Your task to perform on an android device: Search for "macbook pro 15 inch" on walmart.com, select the first entry, add it to the cart, then select checkout. Image 0: 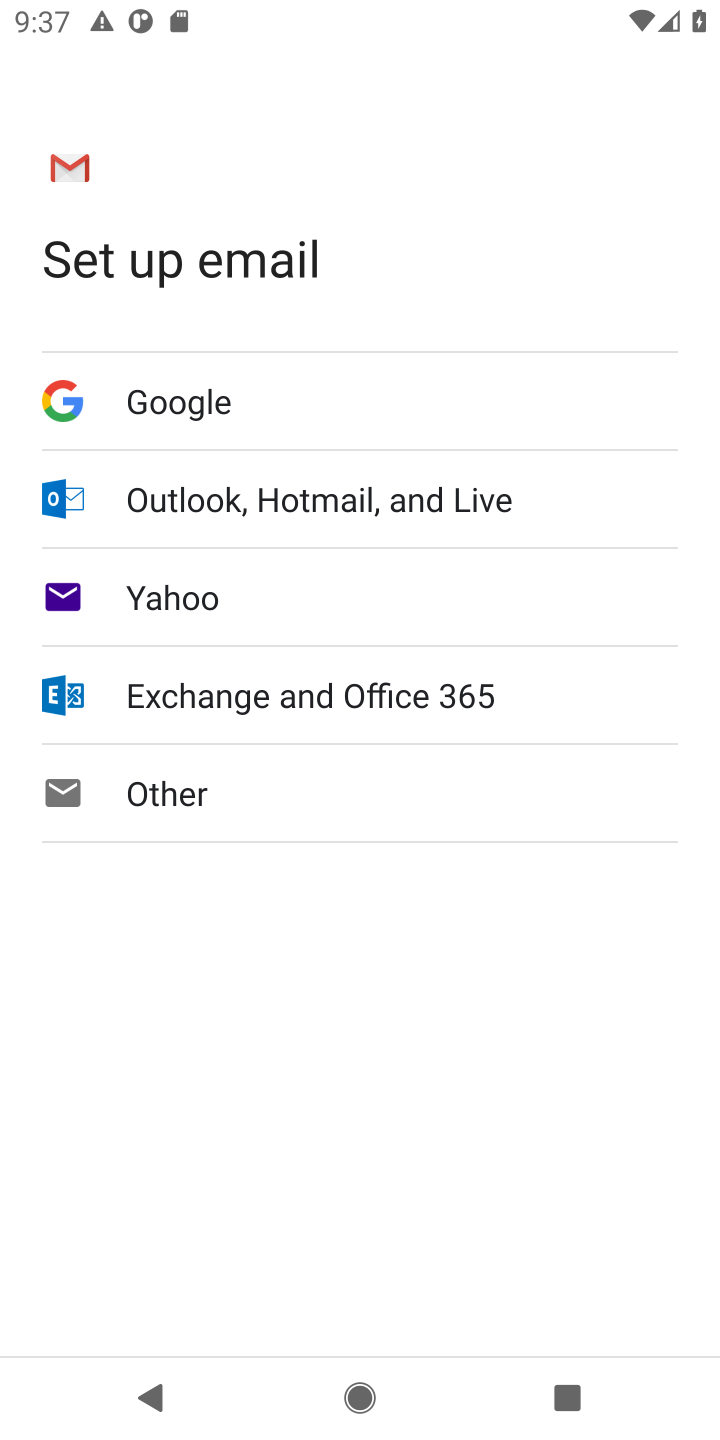
Step 0: press home button
Your task to perform on an android device: Search for "macbook pro 15 inch" on walmart.com, select the first entry, add it to the cart, then select checkout. Image 1: 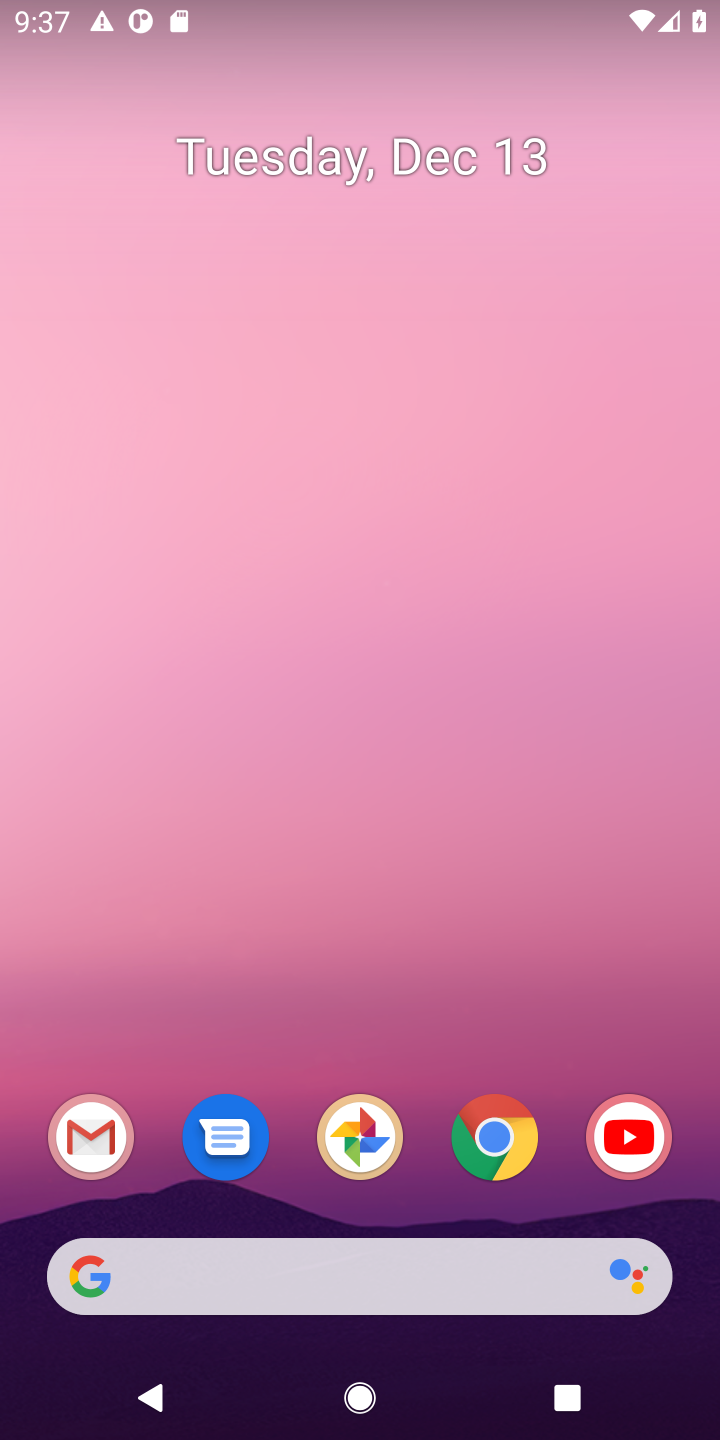
Step 1: click (488, 1155)
Your task to perform on an android device: Search for "macbook pro 15 inch" on walmart.com, select the first entry, add it to the cart, then select checkout. Image 2: 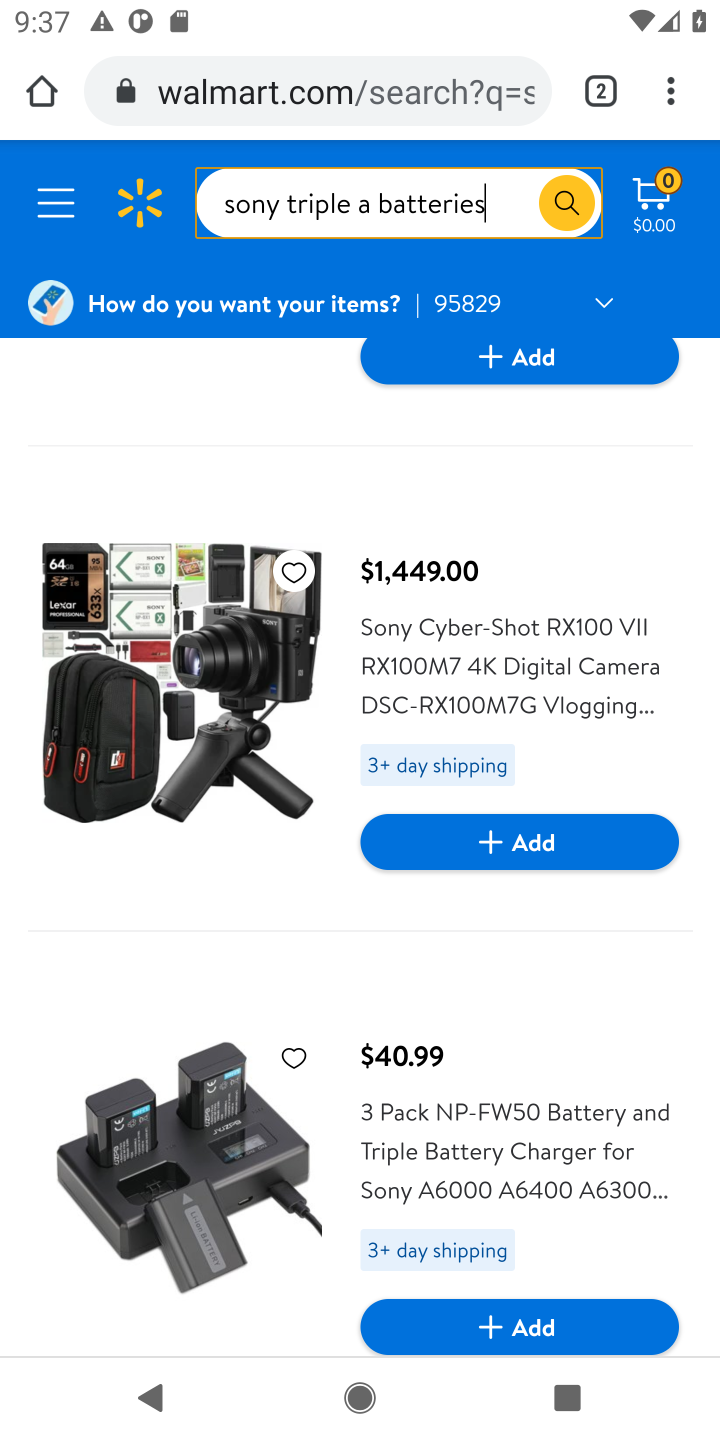
Step 2: click (432, 205)
Your task to perform on an android device: Search for "macbook pro 15 inch" on walmart.com, select the first entry, add it to the cart, then select checkout. Image 3: 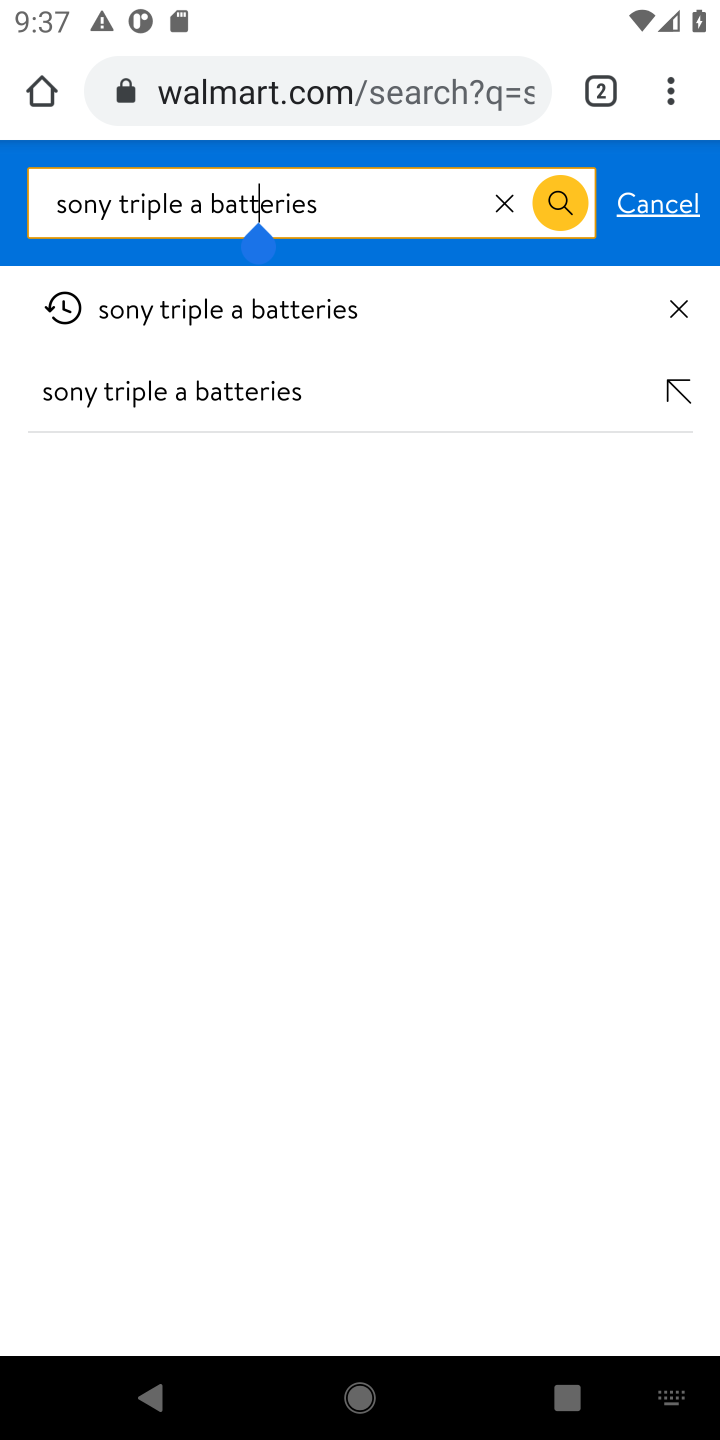
Step 3: click (506, 204)
Your task to perform on an android device: Search for "macbook pro 15 inch" on walmart.com, select the first entry, add it to the cart, then select checkout. Image 4: 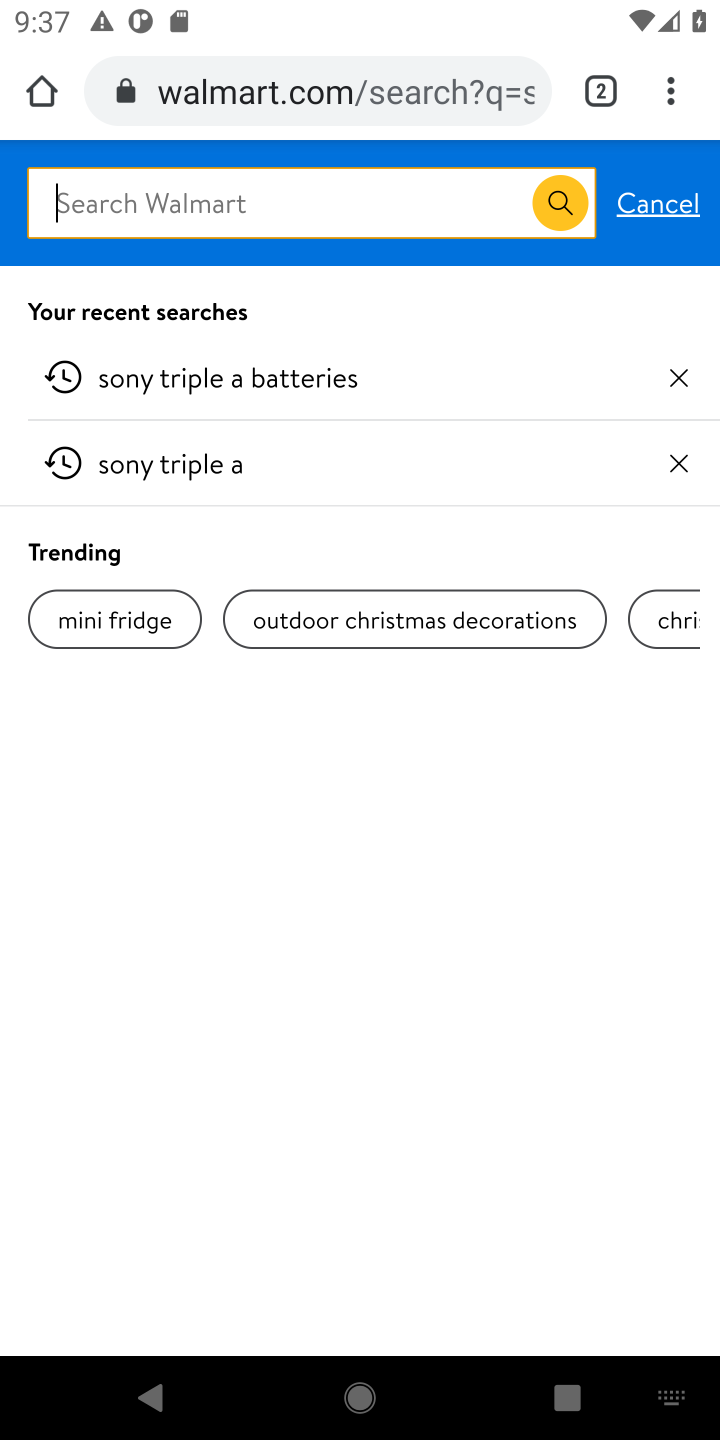
Step 4: type "macbook pro 15 inch"
Your task to perform on an android device: Search for "macbook pro 15 inch" on walmart.com, select the first entry, add it to the cart, then select checkout. Image 5: 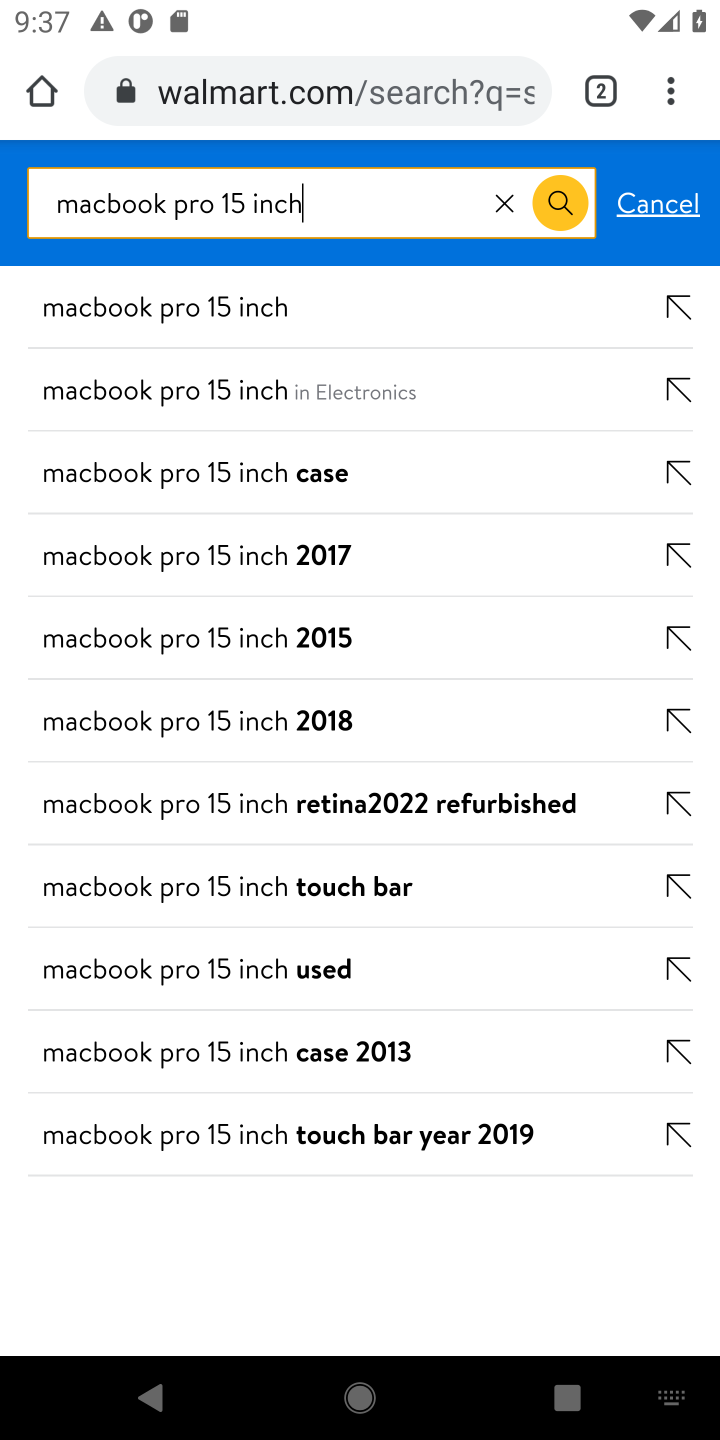
Step 5: click (241, 397)
Your task to perform on an android device: Search for "macbook pro 15 inch" on walmart.com, select the first entry, add it to the cart, then select checkout. Image 6: 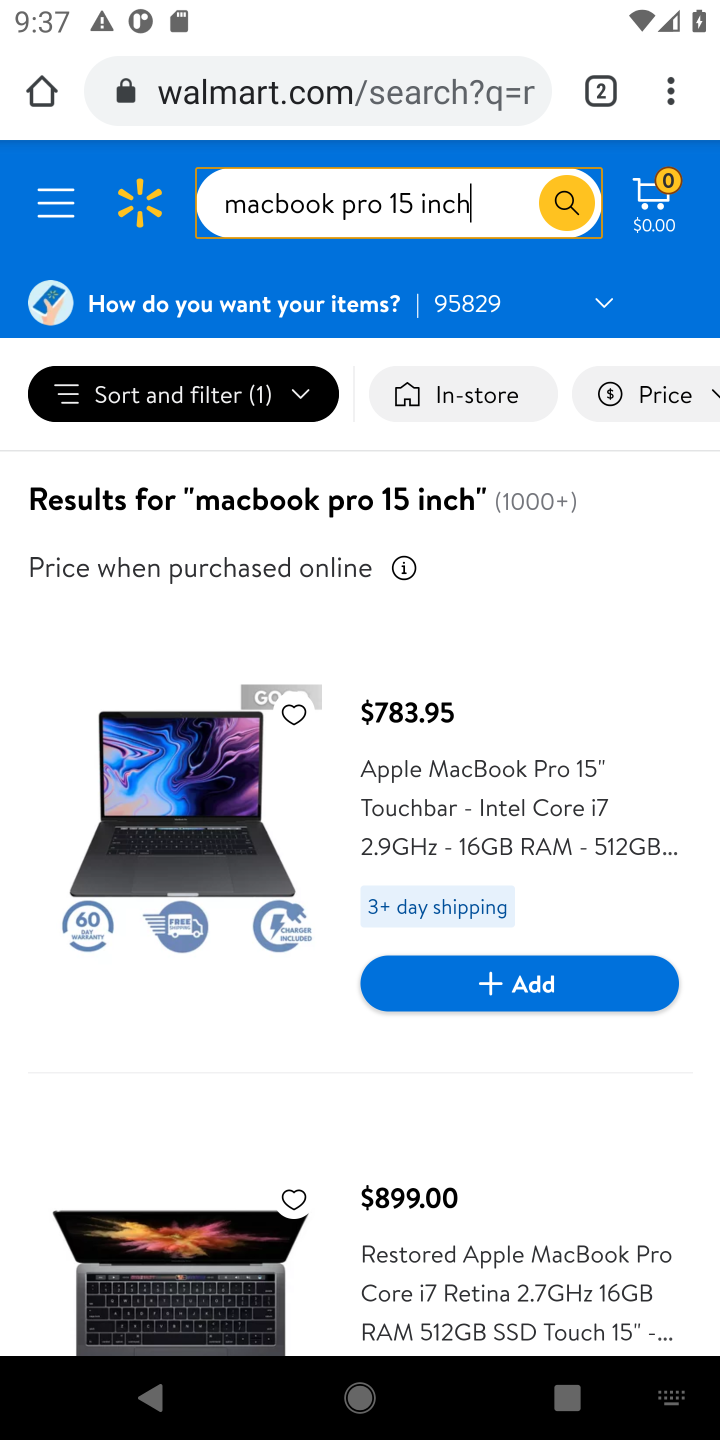
Step 6: click (464, 988)
Your task to perform on an android device: Search for "macbook pro 15 inch" on walmart.com, select the first entry, add it to the cart, then select checkout. Image 7: 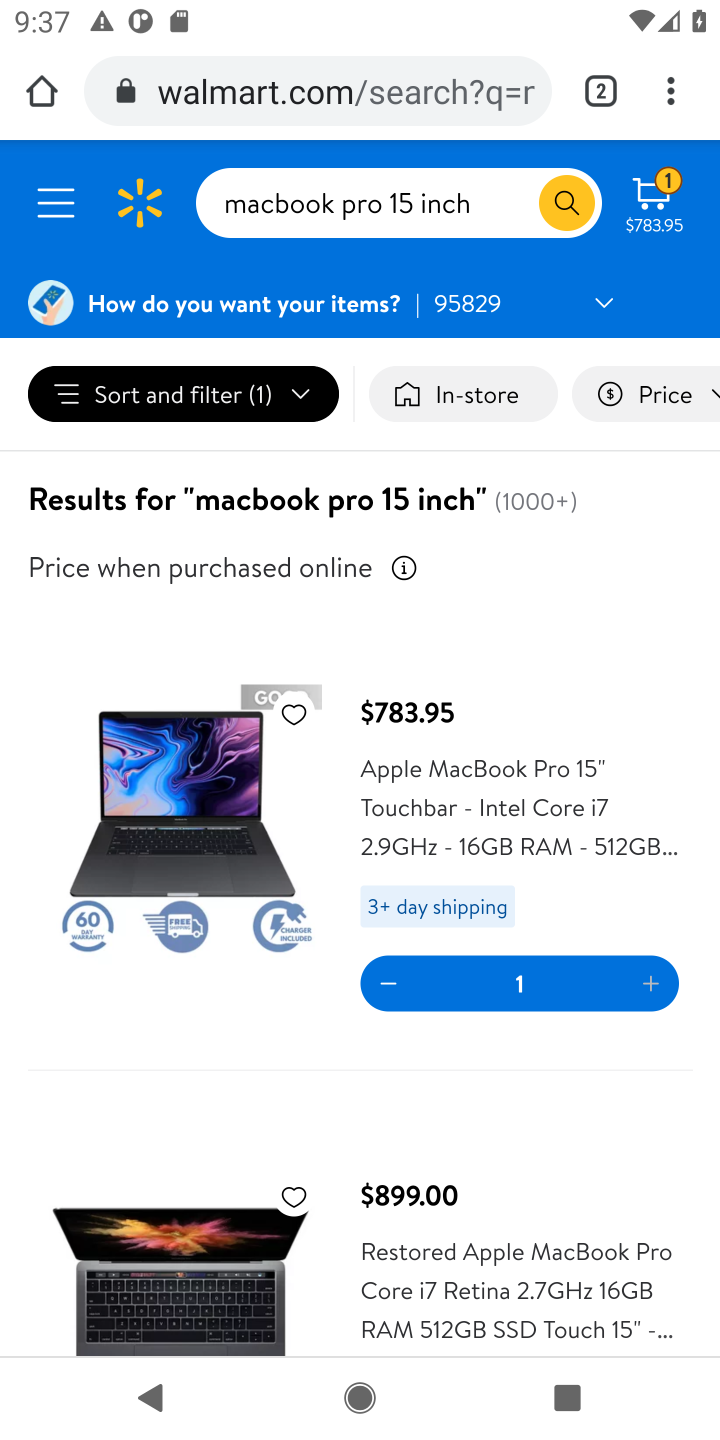
Step 7: task complete